Your task to perform on an android device: turn off smart reply in the gmail app Image 0: 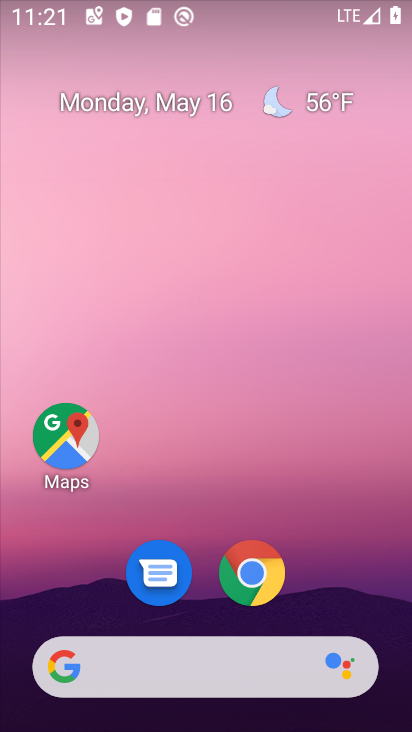
Step 0: drag from (212, 708) to (270, 79)
Your task to perform on an android device: turn off smart reply in the gmail app Image 1: 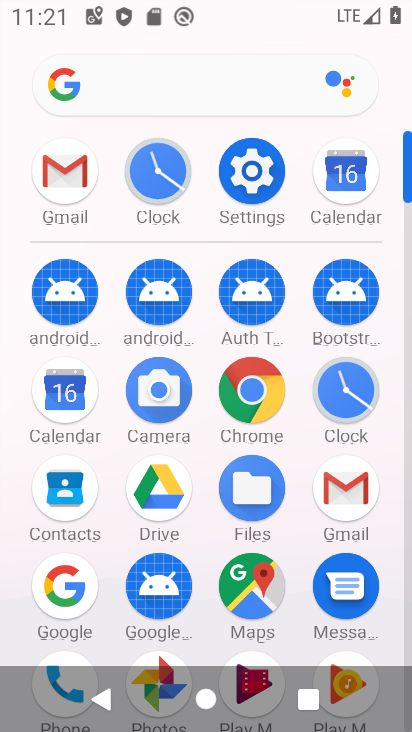
Step 1: click (334, 463)
Your task to perform on an android device: turn off smart reply in the gmail app Image 2: 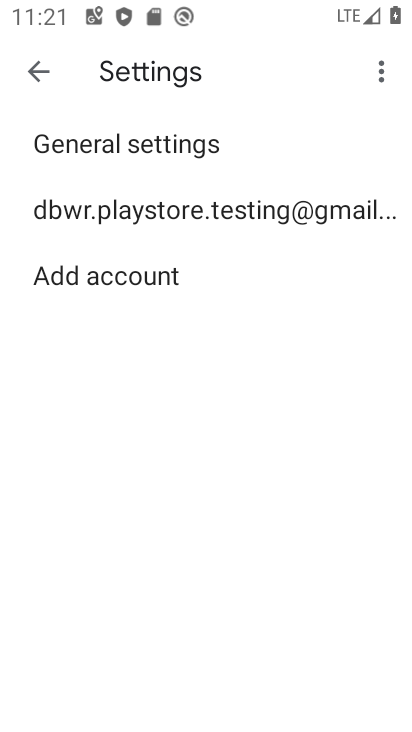
Step 2: click (252, 202)
Your task to perform on an android device: turn off smart reply in the gmail app Image 3: 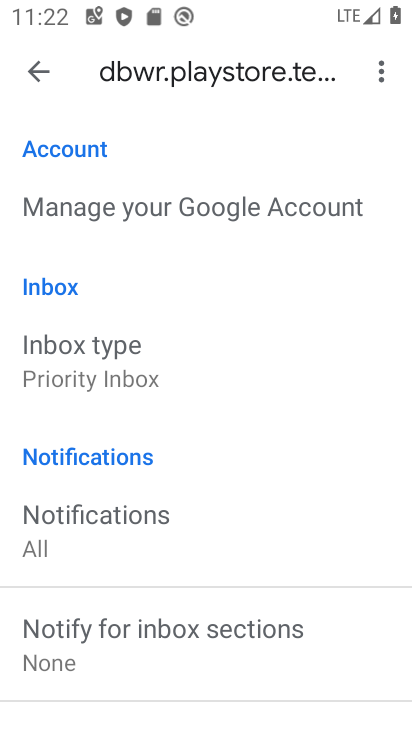
Step 3: drag from (215, 638) to (308, 28)
Your task to perform on an android device: turn off smart reply in the gmail app Image 4: 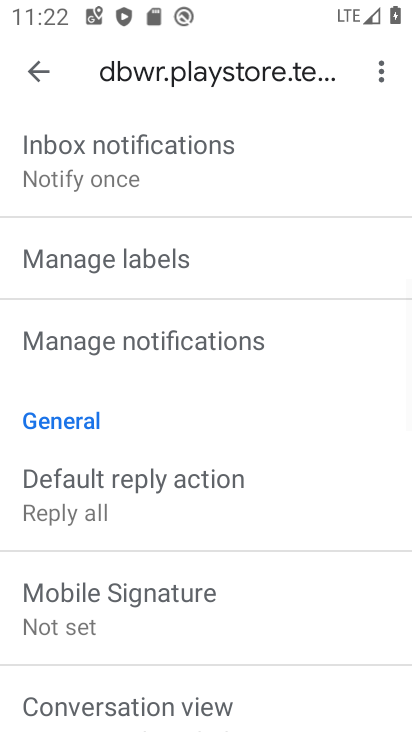
Step 4: drag from (243, 686) to (355, 3)
Your task to perform on an android device: turn off smart reply in the gmail app Image 5: 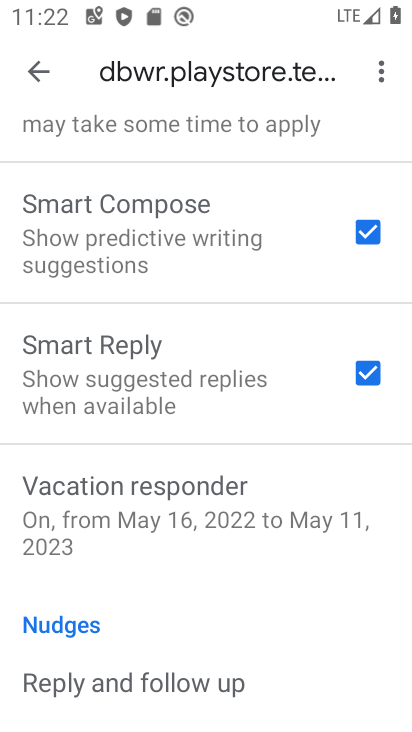
Step 5: click (372, 378)
Your task to perform on an android device: turn off smart reply in the gmail app Image 6: 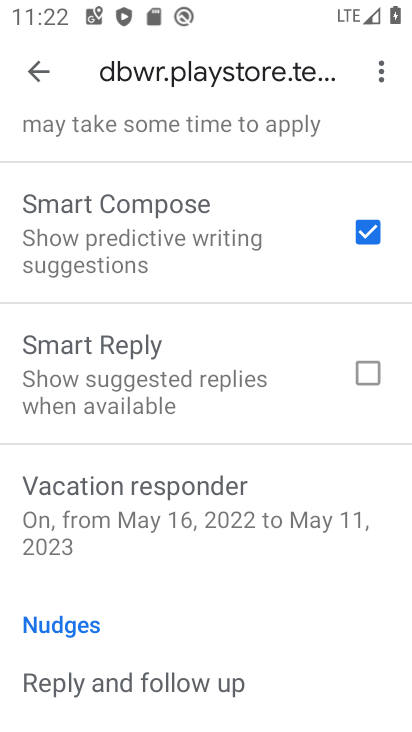
Step 6: task complete